Your task to perform on an android device: Open calendar and show me the second week of next month Image 0: 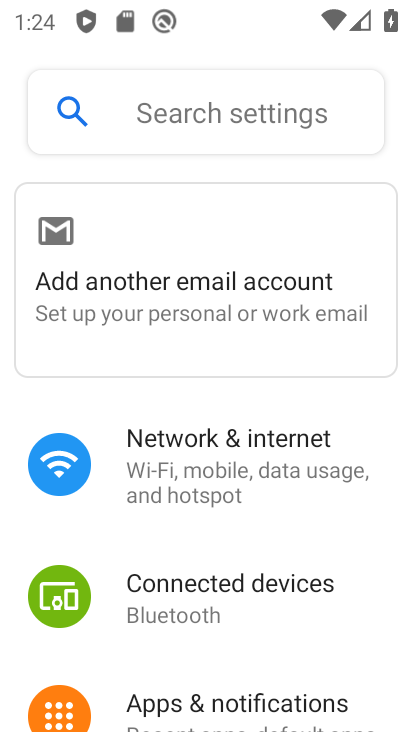
Step 0: press home button
Your task to perform on an android device: Open calendar and show me the second week of next month Image 1: 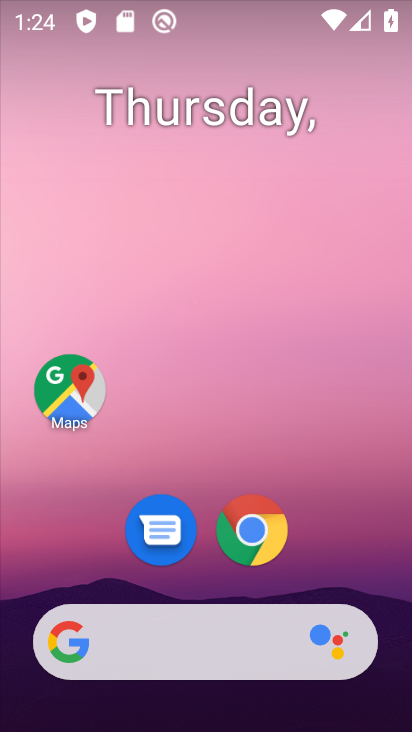
Step 1: drag from (245, 704) to (232, 3)
Your task to perform on an android device: Open calendar and show me the second week of next month Image 2: 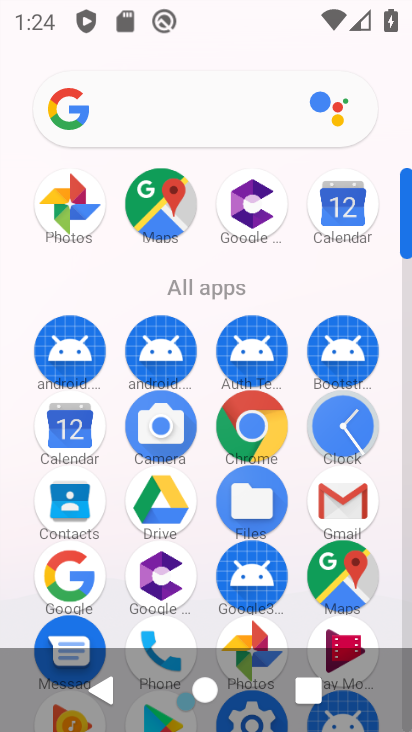
Step 2: click (64, 438)
Your task to perform on an android device: Open calendar and show me the second week of next month Image 3: 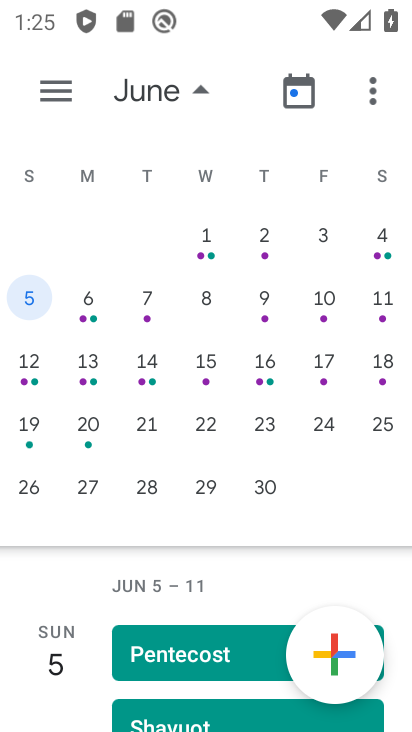
Step 3: task complete